Your task to perform on an android device: open app "Move to iOS" (install if not already installed) and go to login screen Image 0: 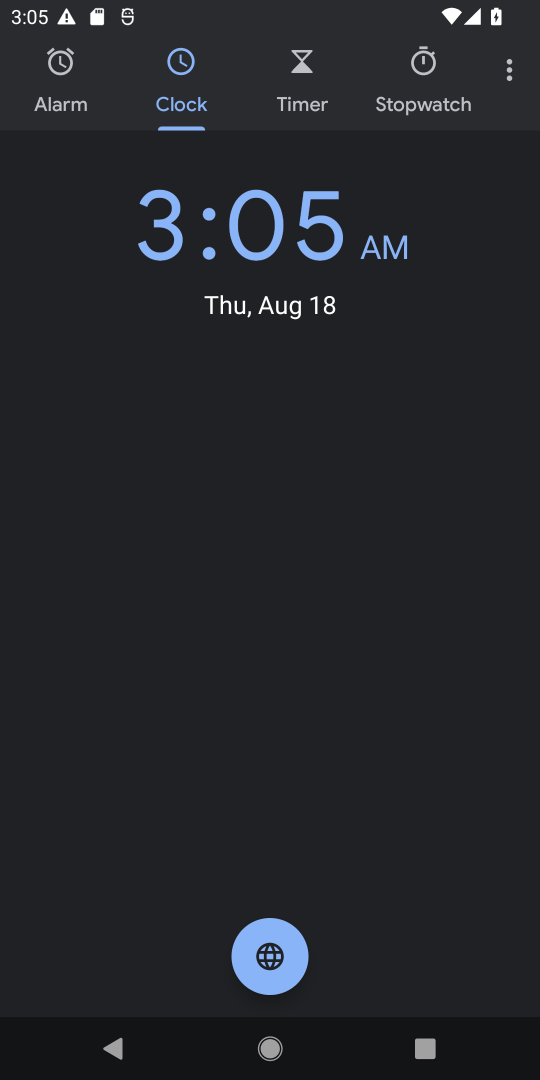
Step 0: press home button
Your task to perform on an android device: open app "Move to iOS" (install if not already installed) and go to login screen Image 1: 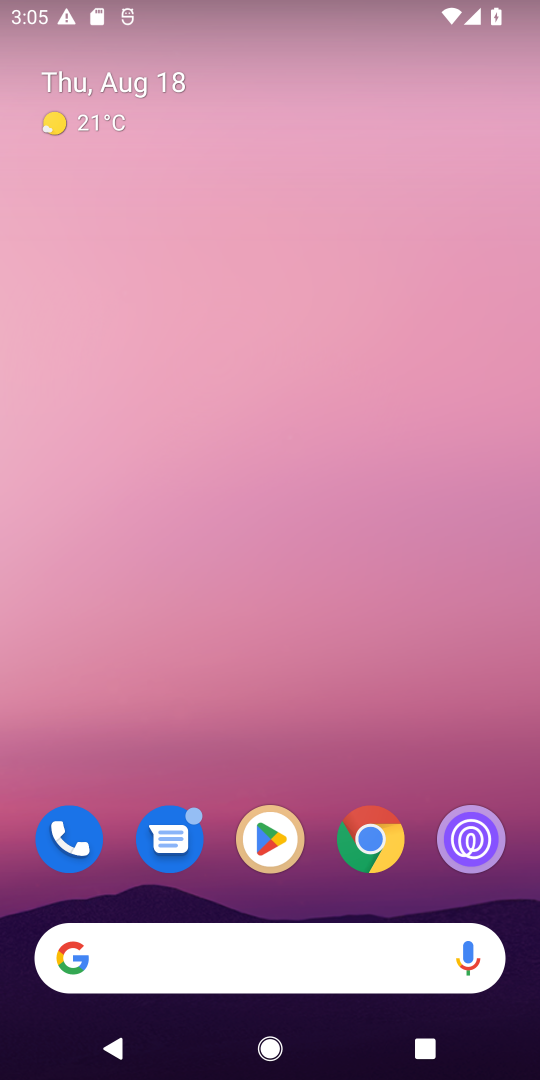
Step 1: drag from (252, 887) to (276, 0)
Your task to perform on an android device: open app "Move to iOS" (install if not already installed) and go to login screen Image 2: 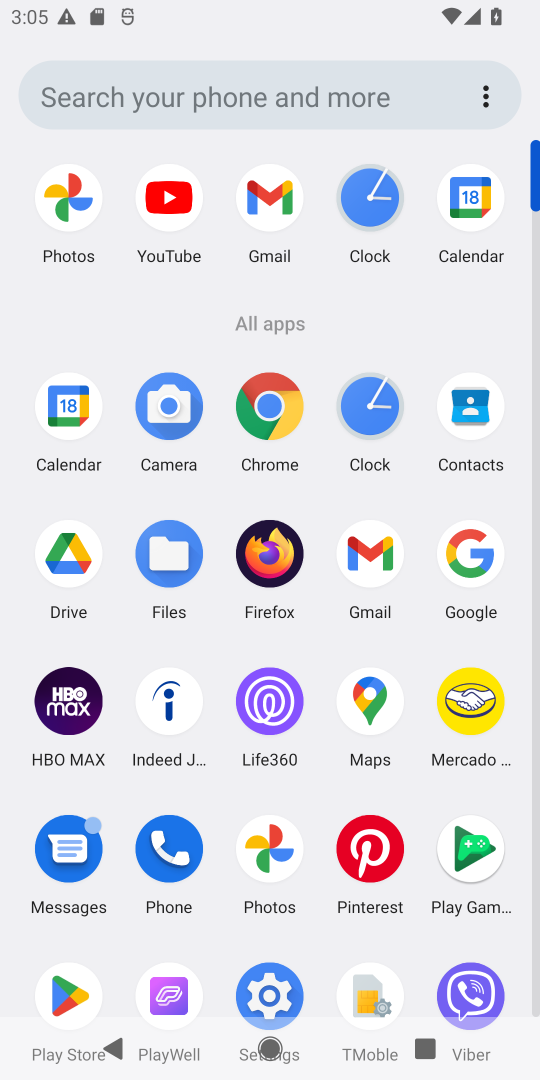
Step 2: click (80, 987)
Your task to perform on an android device: open app "Move to iOS" (install if not already installed) and go to login screen Image 3: 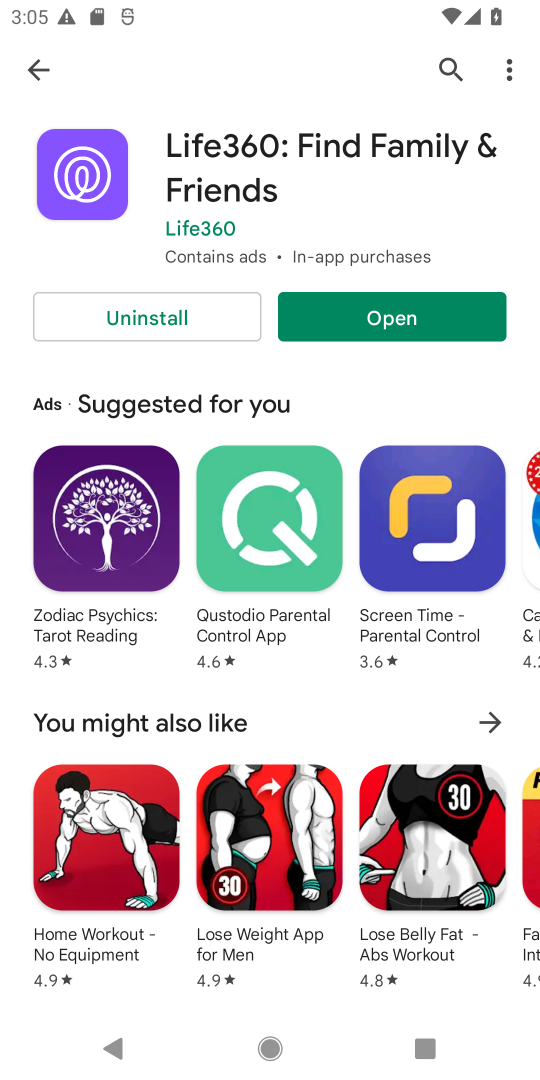
Step 3: click (30, 66)
Your task to perform on an android device: open app "Move to iOS" (install if not already installed) and go to login screen Image 4: 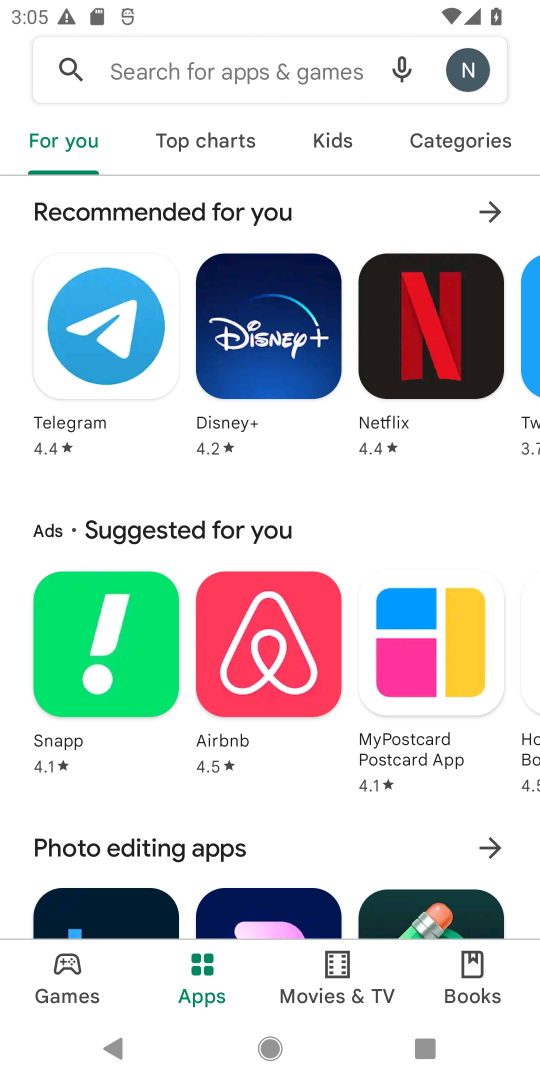
Step 4: click (221, 82)
Your task to perform on an android device: open app "Move to iOS" (install if not already installed) and go to login screen Image 5: 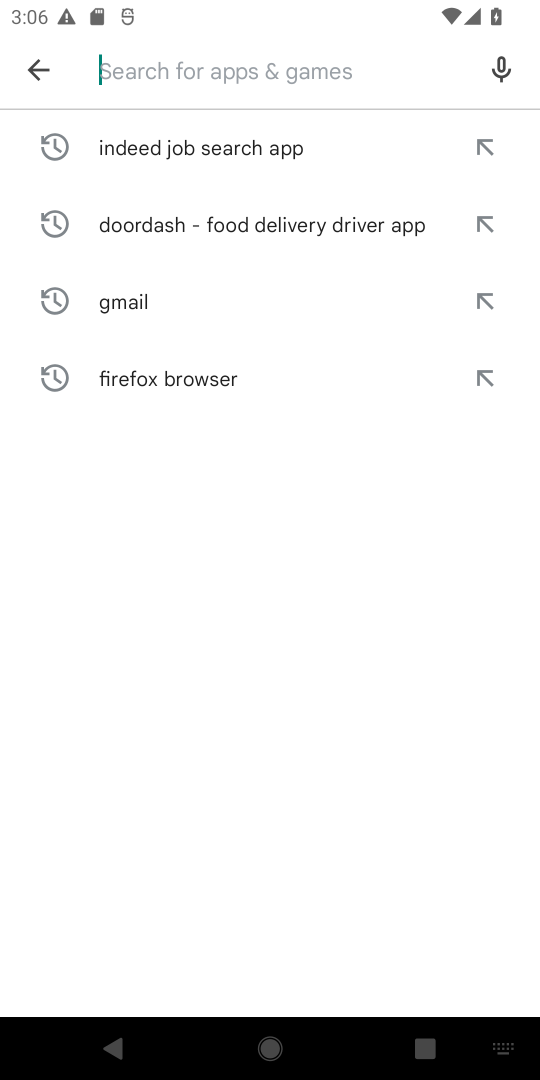
Step 5: type "Move to iOS"
Your task to perform on an android device: open app "Move to iOS" (install if not already installed) and go to login screen Image 6: 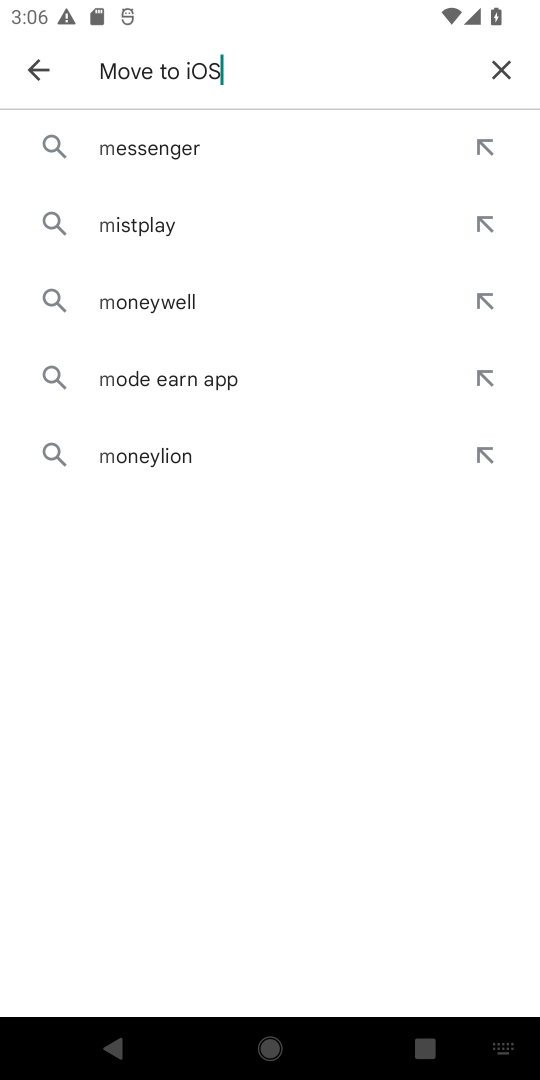
Step 6: type ""
Your task to perform on an android device: open app "Move to iOS" (install if not already installed) and go to login screen Image 7: 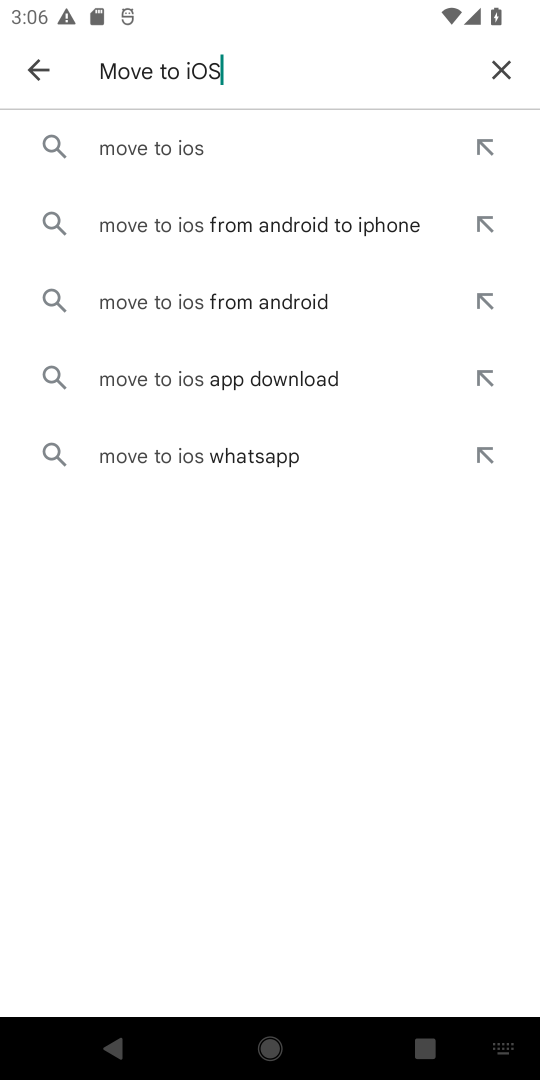
Step 7: click (132, 157)
Your task to perform on an android device: open app "Move to iOS" (install if not already installed) and go to login screen Image 8: 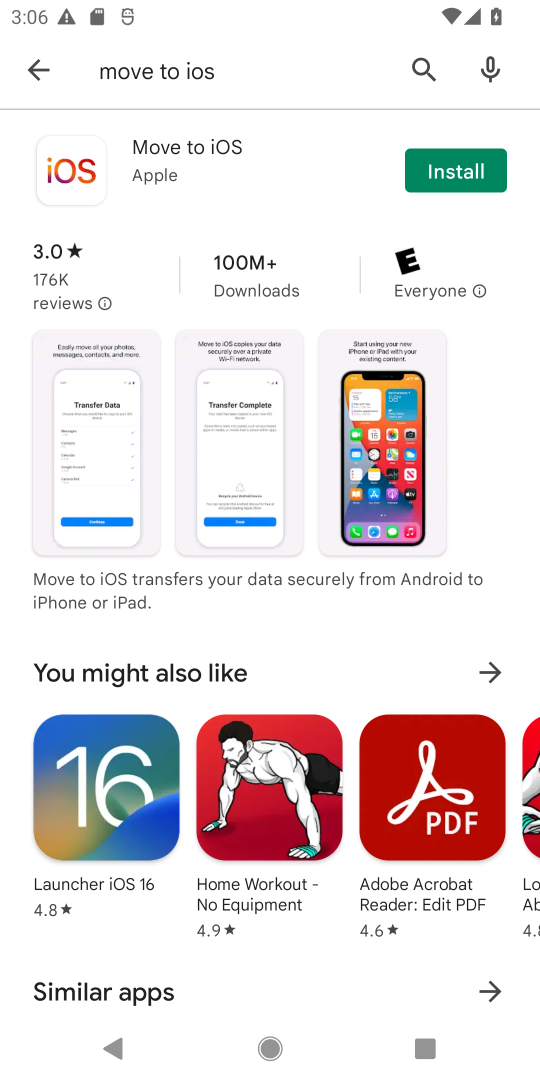
Step 8: click (444, 171)
Your task to perform on an android device: open app "Move to iOS" (install if not already installed) and go to login screen Image 9: 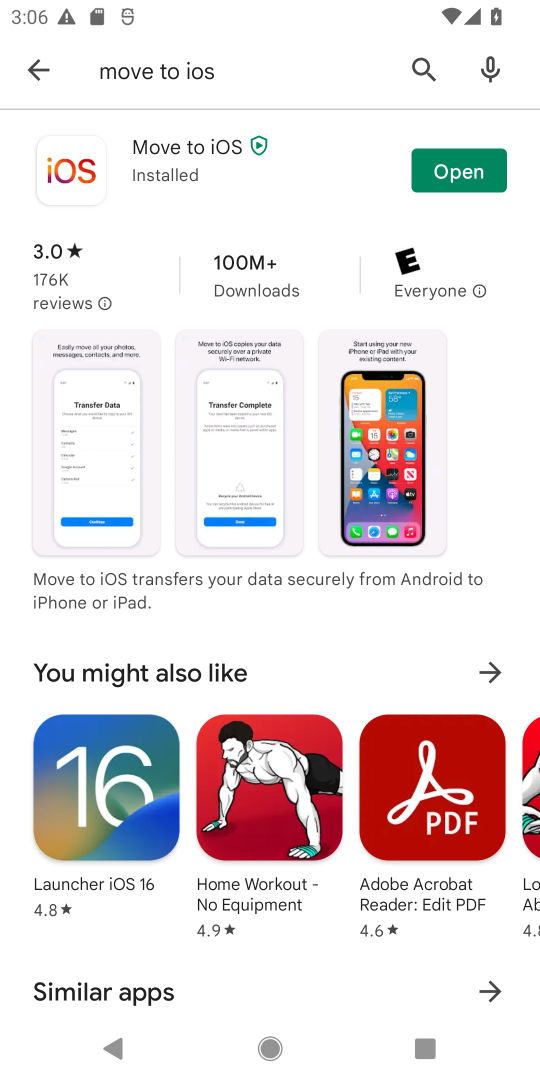
Step 9: click (418, 176)
Your task to perform on an android device: open app "Move to iOS" (install if not already installed) and go to login screen Image 10: 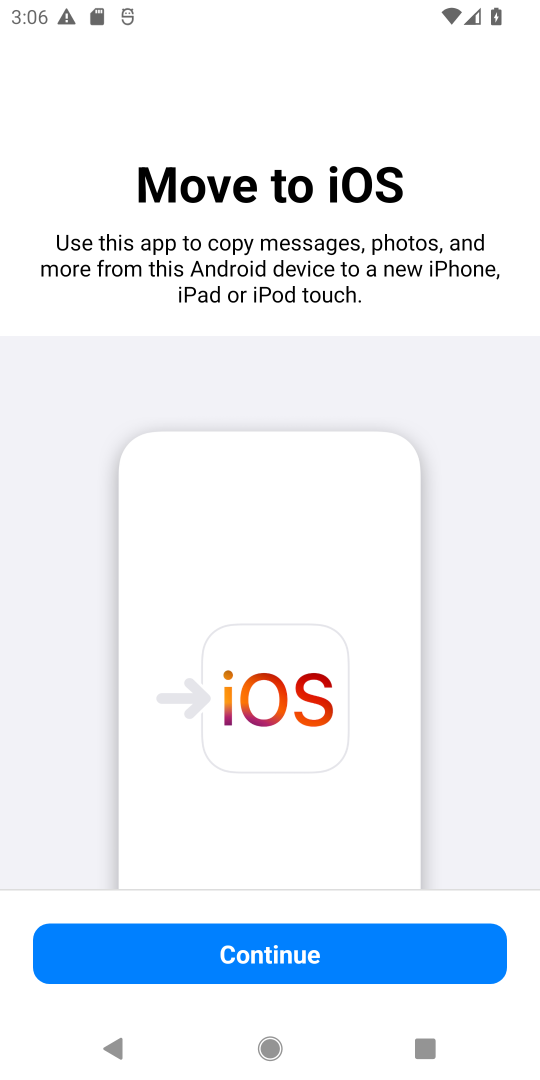
Step 10: click (241, 945)
Your task to perform on an android device: open app "Move to iOS" (install if not already installed) and go to login screen Image 11: 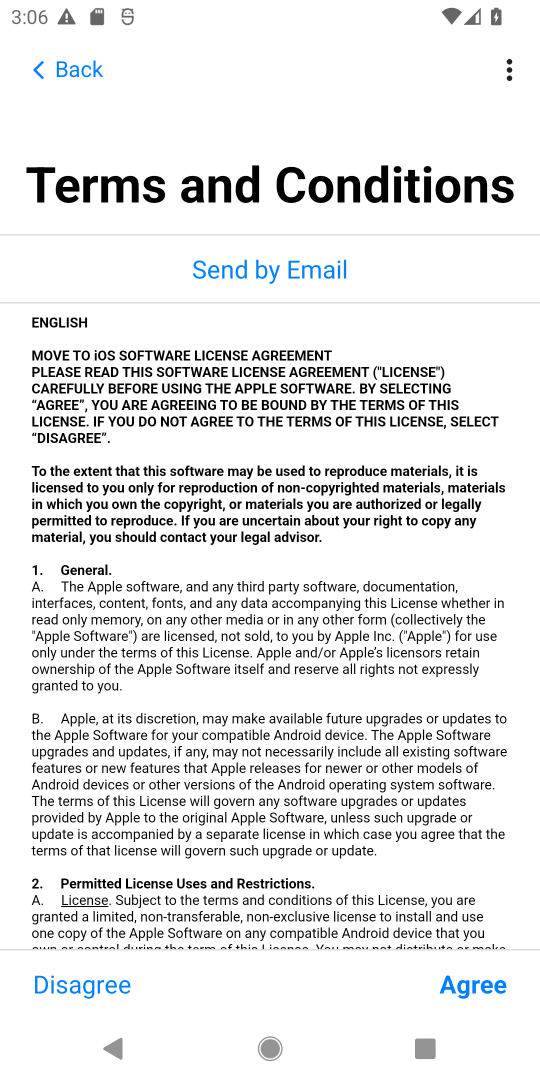
Step 11: click (454, 971)
Your task to perform on an android device: open app "Move to iOS" (install if not already installed) and go to login screen Image 12: 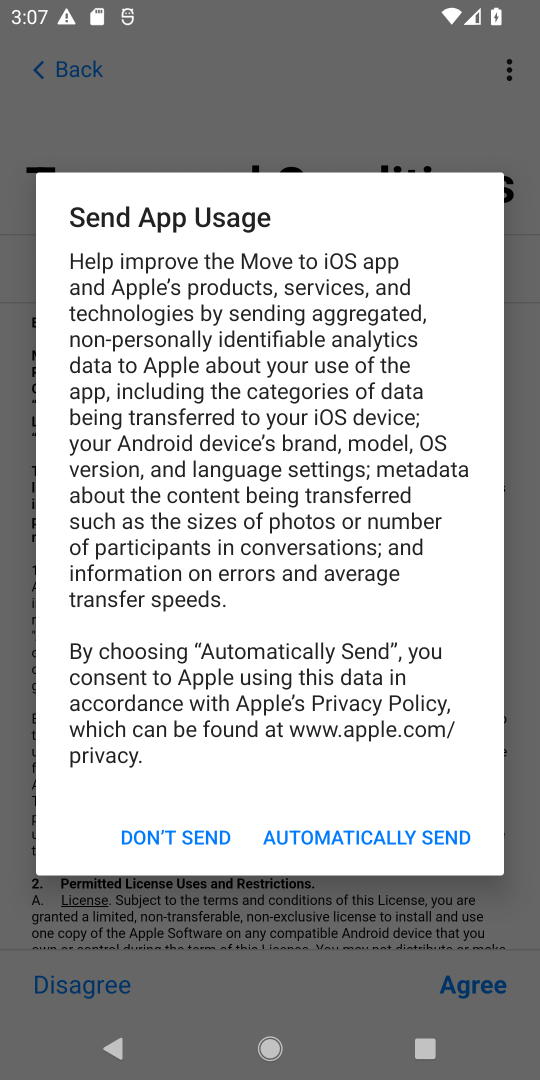
Step 12: click (377, 828)
Your task to perform on an android device: open app "Move to iOS" (install if not already installed) and go to login screen Image 13: 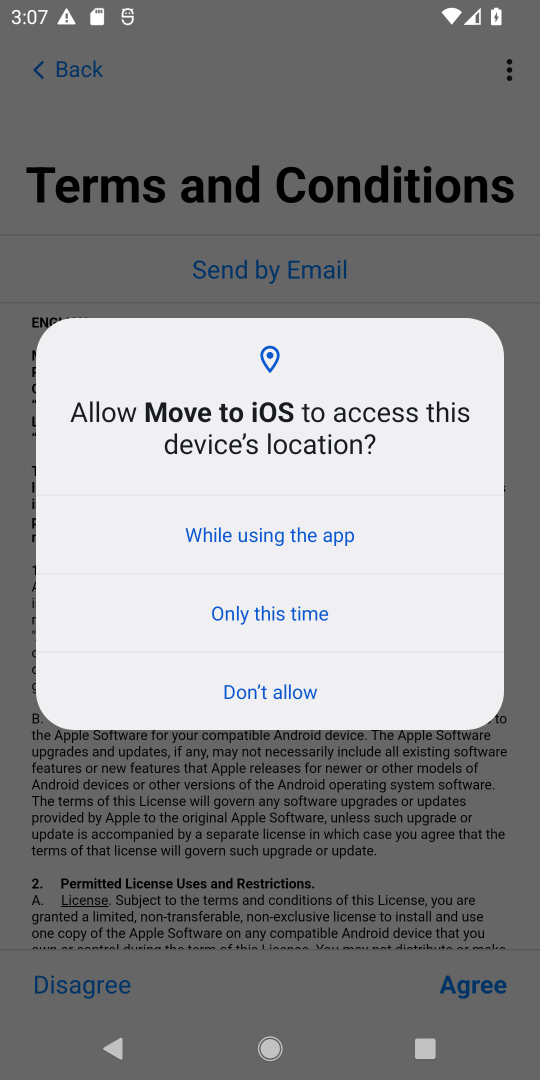
Step 13: click (235, 541)
Your task to perform on an android device: open app "Move to iOS" (install if not already installed) and go to login screen Image 14: 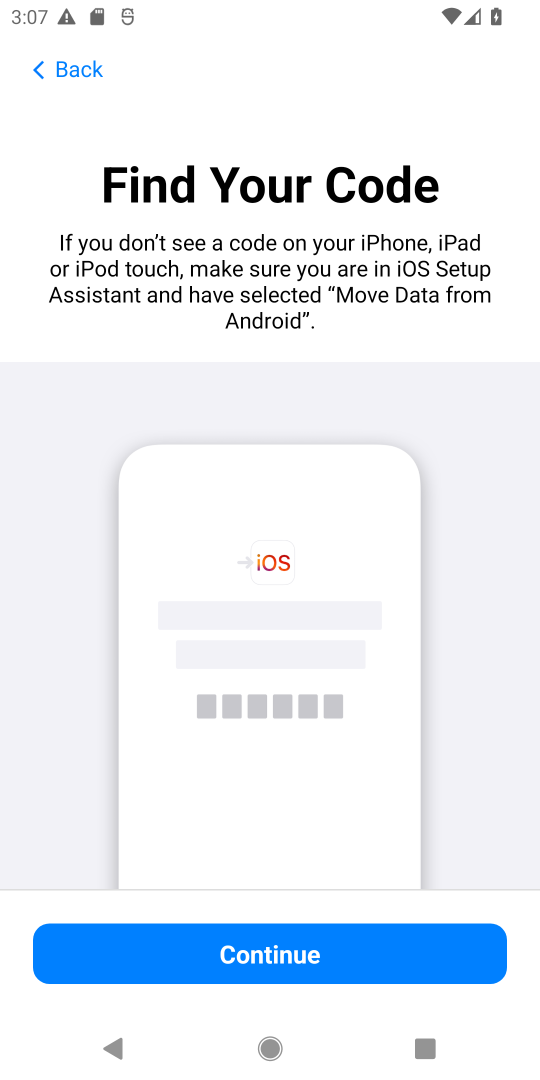
Step 14: click (347, 951)
Your task to perform on an android device: open app "Move to iOS" (install if not already installed) and go to login screen Image 15: 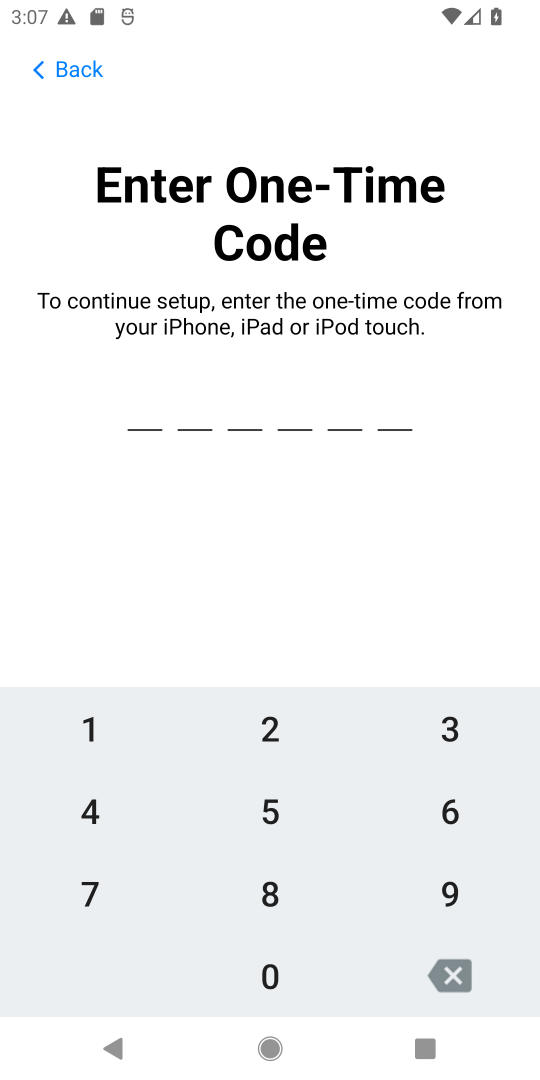
Step 15: task complete